Your task to perform on an android device: Open Chrome and go to settings Image 0: 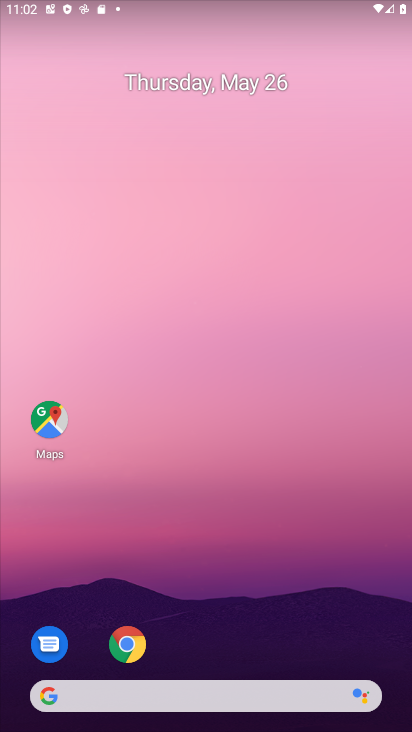
Step 0: drag from (347, 650) to (310, 49)
Your task to perform on an android device: Open Chrome and go to settings Image 1: 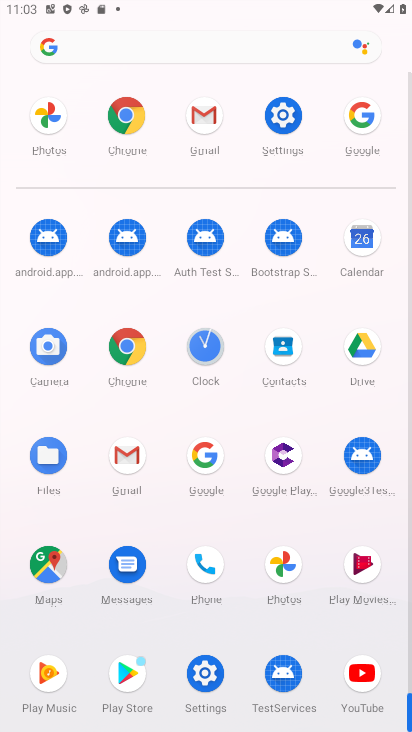
Step 1: click (115, 349)
Your task to perform on an android device: Open Chrome and go to settings Image 2: 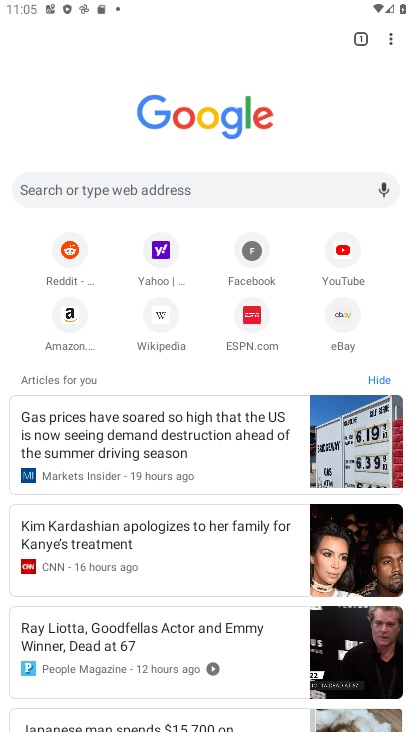
Step 2: click (388, 32)
Your task to perform on an android device: Open Chrome and go to settings Image 3: 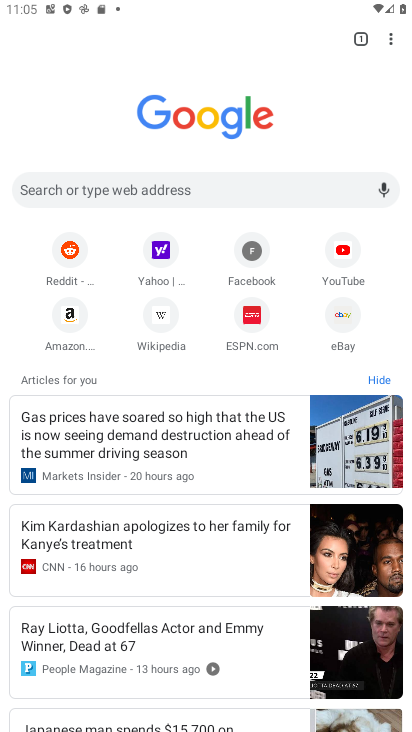
Step 3: click (391, 43)
Your task to perform on an android device: Open Chrome and go to settings Image 4: 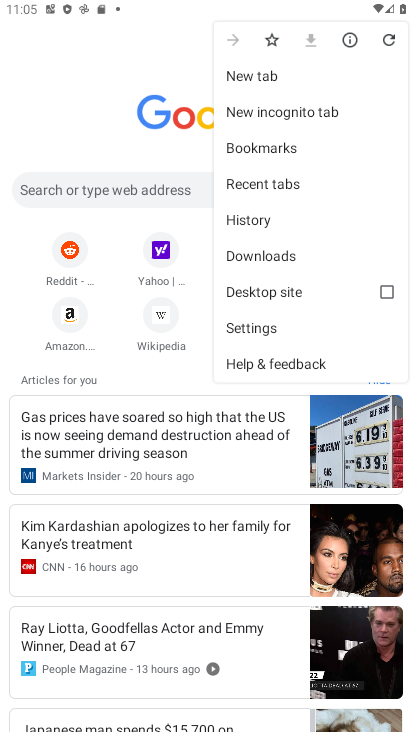
Step 4: click (279, 326)
Your task to perform on an android device: Open Chrome and go to settings Image 5: 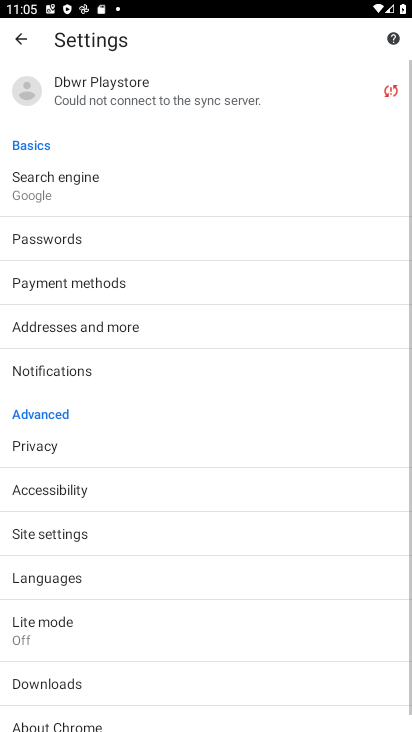
Step 5: task complete